Your task to perform on an android device: Go to internet settings Image 0: 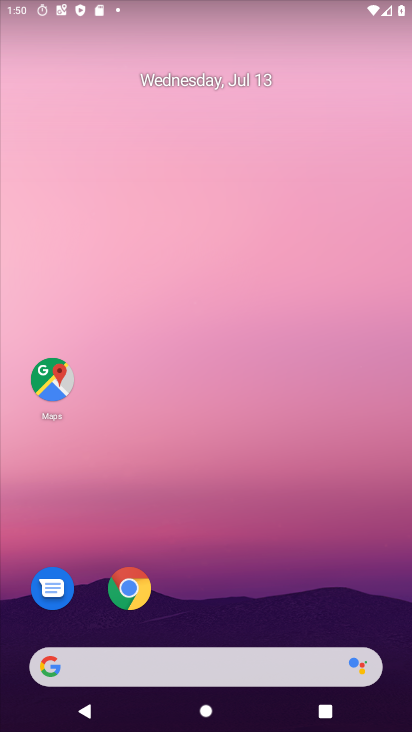
Step 0: drag from (208, 647) to (265, 366)
Your task to perform on an android device: Go to internet settings Image 1: 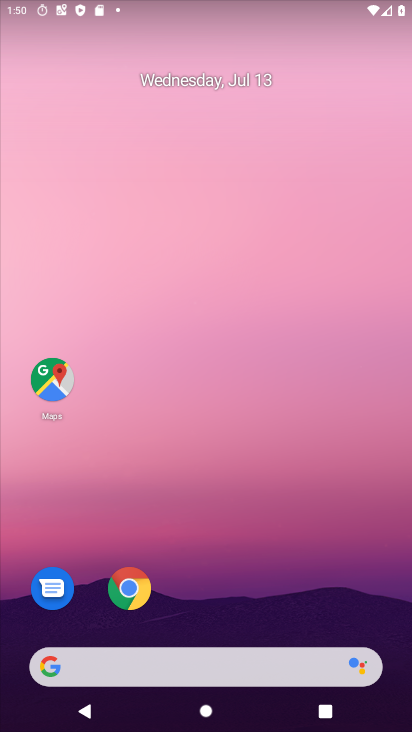
Step 1: drag from (242, 558) to (267, 331)
Your task to perform on an android device: Go to internet settings Image 2: 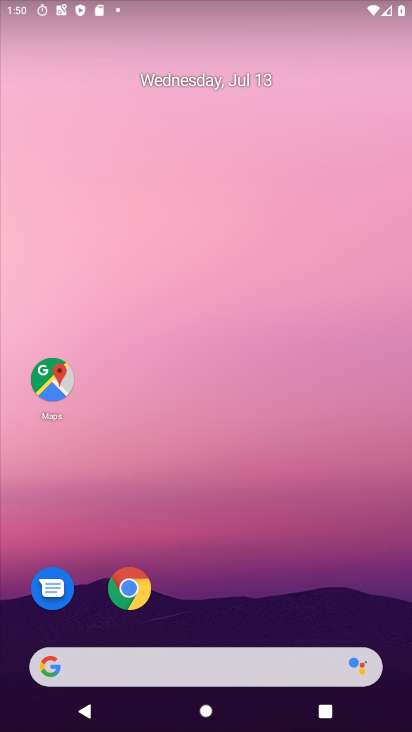
Step 2: drag from (236, 632) to (294, 246)
Your task to perform on an android device: Go to internet settings Image 3: 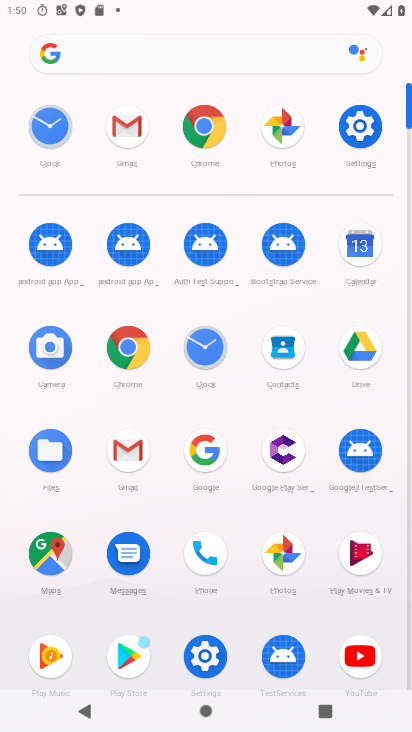
Step 3: click (368, 115)
Your task to perform on an android device: Go to internet settings Image 4: 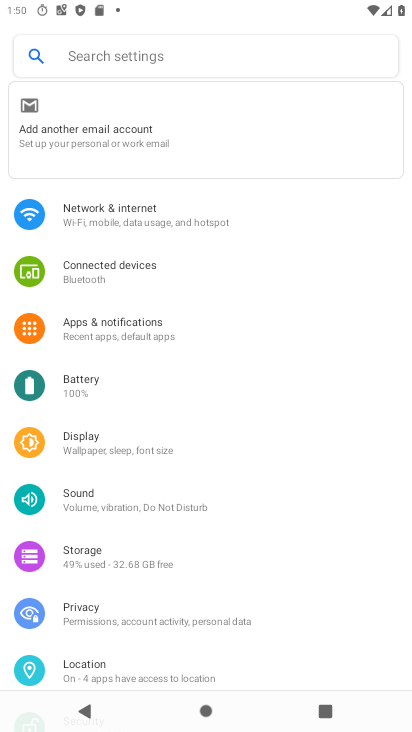
Step 4: click (161, 215)
Your task to perform on an android device: Go to internet settings Image 5: 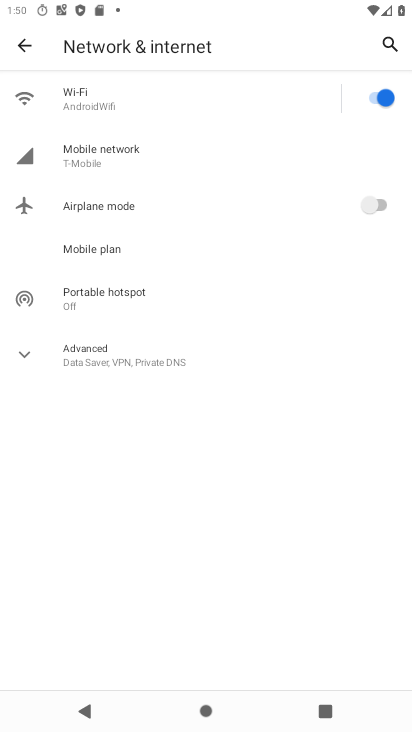
Step 5: click (156, 354)
Your task to perform on an android device: Go to internet settings Image 6: 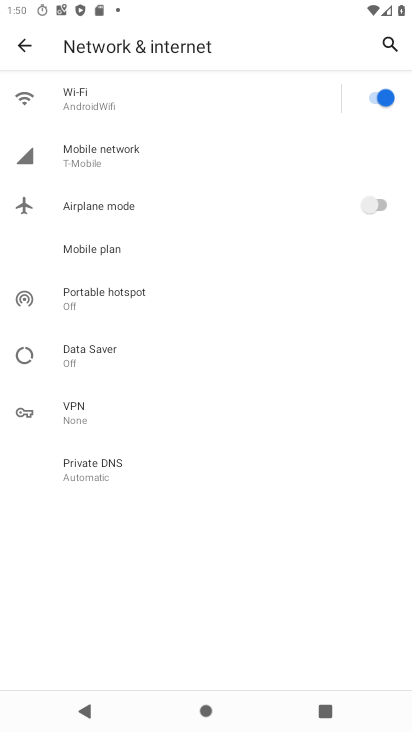
Step 6: task complete